Your task to perform on an android device: Do I have any events today? Image 0: 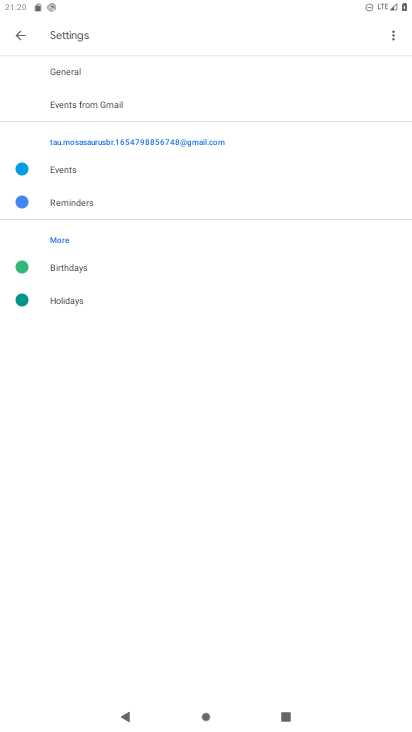
Step 0: press home button
Your task to perform on an android device: Do I have any events today? Image 1: 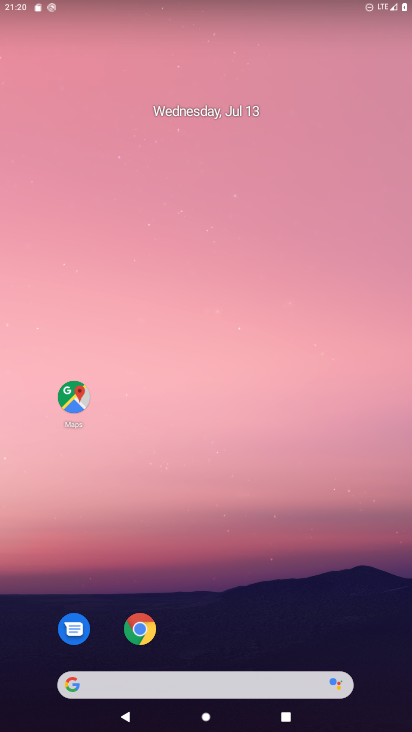
Step 1: drag from (257, 543) to (392, 328)
Your task to perform on an android device: Do I have any events today? Image 2: 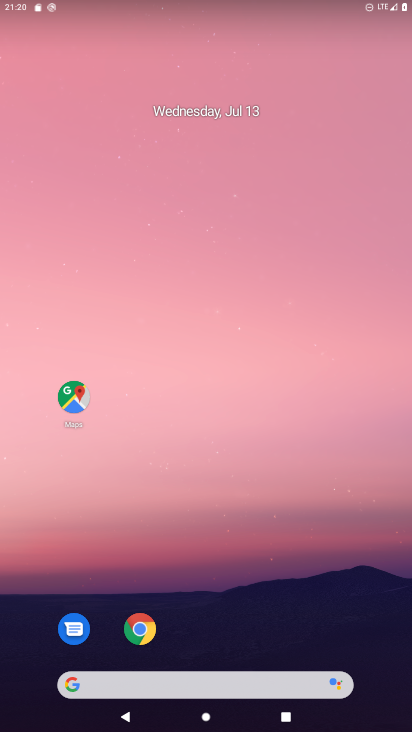
Step 2: drag from (252, 629) to (250, 472)
Your task to perform on an android device: Do I have any events today? Image 3: 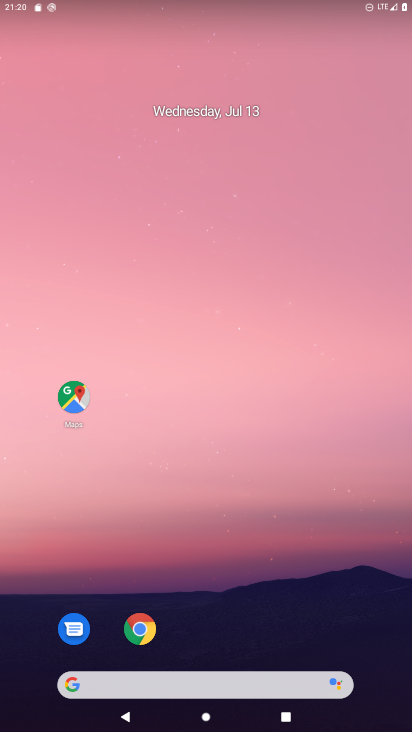
Step 3: drag from (233, 595) to (198, 142)
Your task to perform on an android device: Do I have any events today? Image 4: 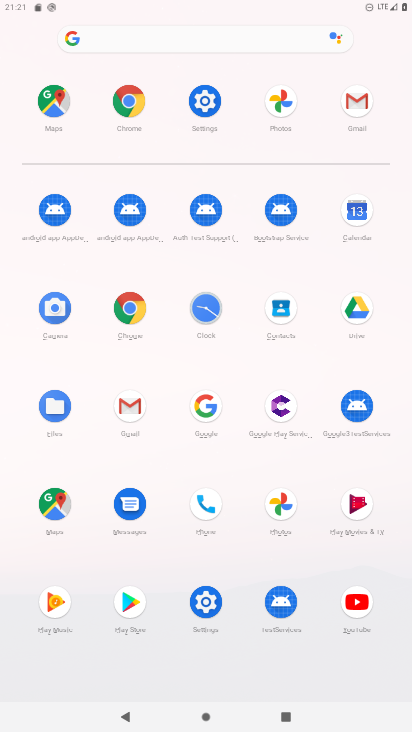
Step 4: click (361, 203)
Your task to perform on an android device: Do I have any events today? Image 5: 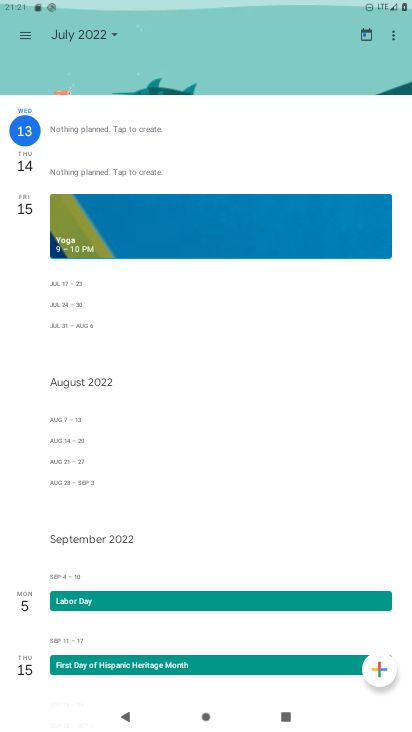
Step 5: click (70, 29)
Your task to perform on an android device: Do I have any events today? Image 6: 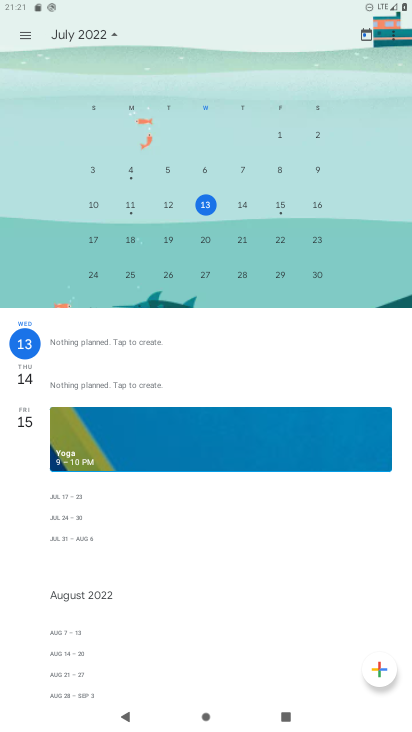
Step 6: click (240, 203)
Your task to perform on an android device: Do I have any events today? Image 7: 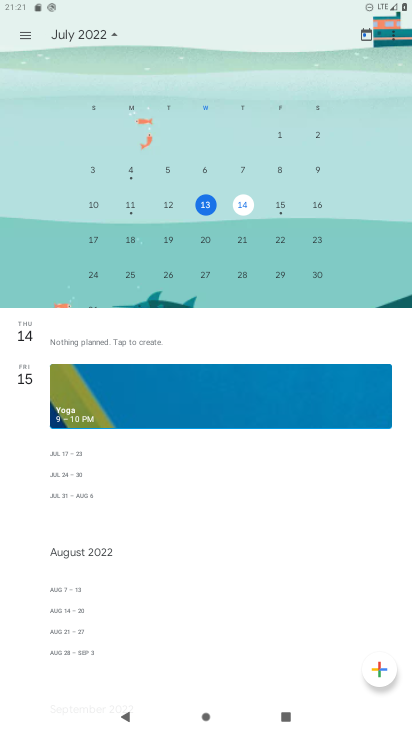
Step 7: task complete